Your task to perform on an android device: add a label to a message in the gmail app Image 0: 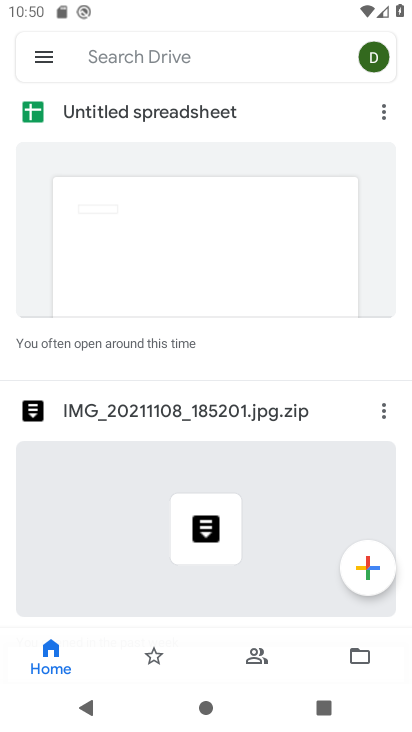
Step 0: press home button
Your task to perform on an android device: add a label to a message in the gmail app Image 1: 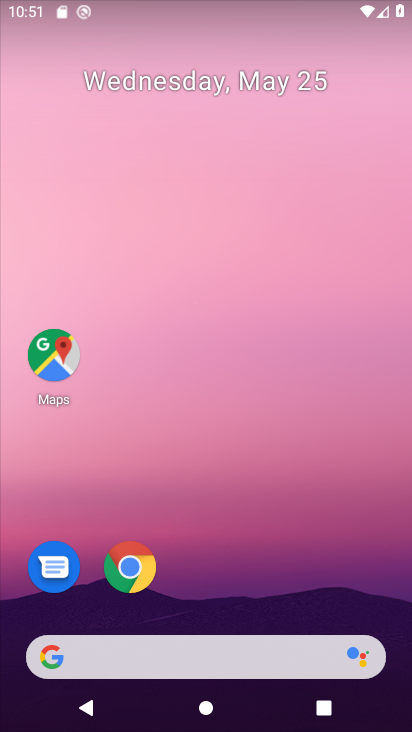
Step 1: drag from (218, 582) to (126, 4)
Your task to perform on an android device: add a label to a message in the gmail app Image 2: 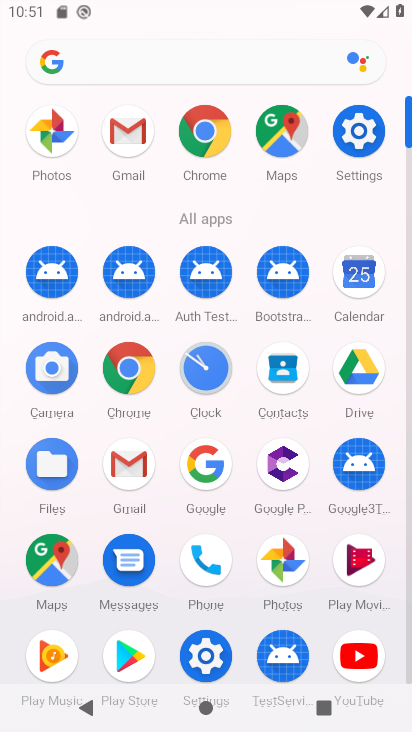
Step 2: click (122, 461)
Your task to perform on an android device: add a label to a message in the gmail app Image 3: 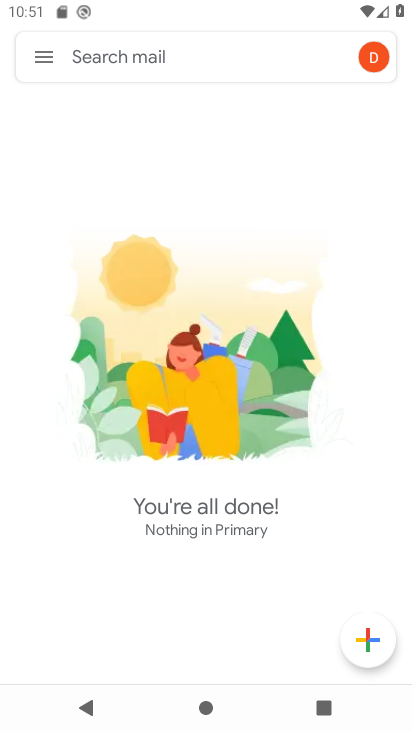
Step 3: click (53, 55)
Your task to perform on an android device: add a label to a message in the gmail app Image 4: 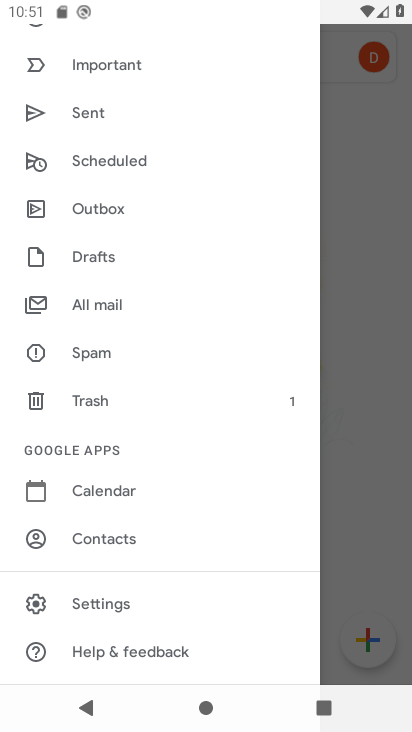
Step 4: click (115, 597)
Your task to perform on an android device: add a label to a message in the gmail app Image 5: 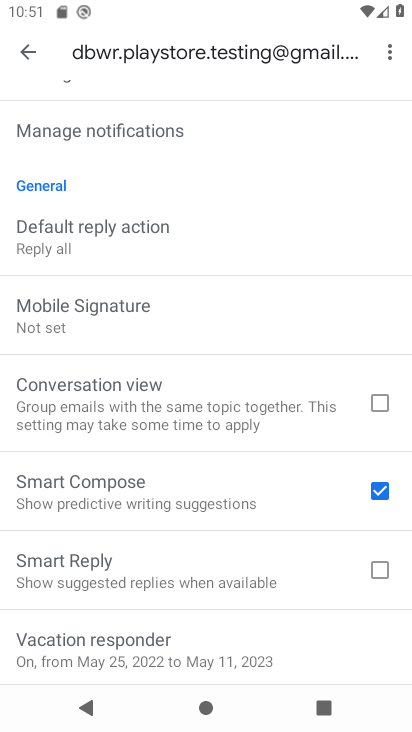
Step 5: drag from (121, 159) to (137, 566)
Your task to perform on an android device: add a label to a message in the gmail app Image 6: 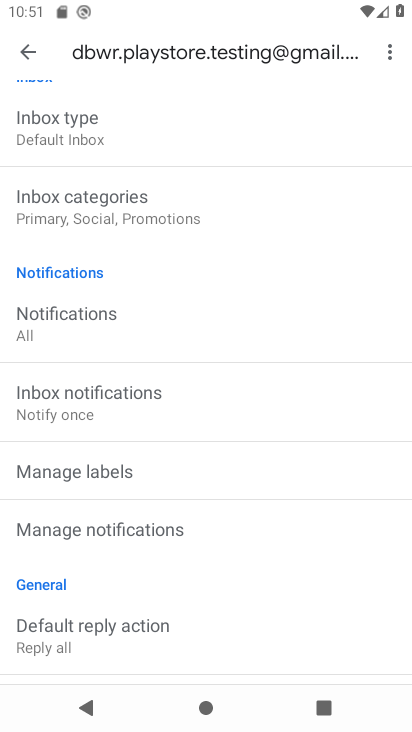
Step 6: press back button
Your task to perform on an android device: add a label to a message in the gmail app Image 7: 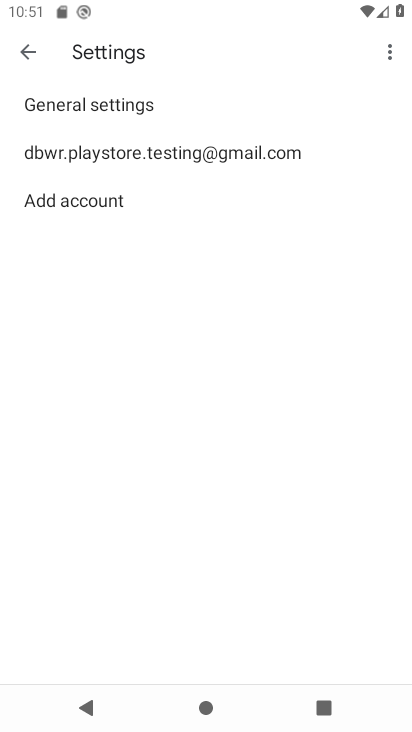
Step 7: press back button
Your task to perform on an android device: add a label to a message in the gmail app Image 8: 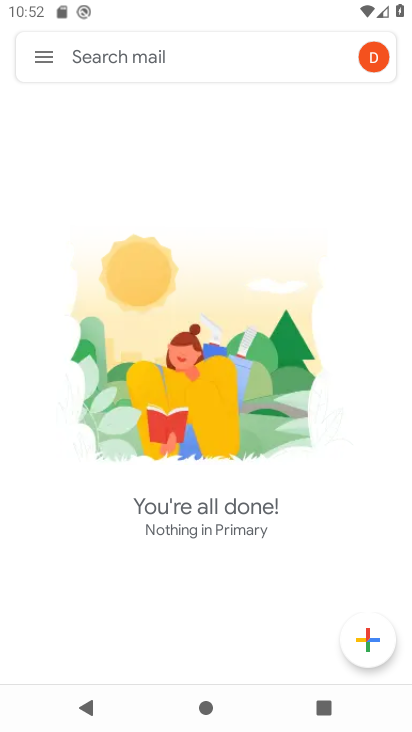
Step 8: click (40, 60)
Your task to perform on an android device: add a label to a message in the gmail app Image 9: 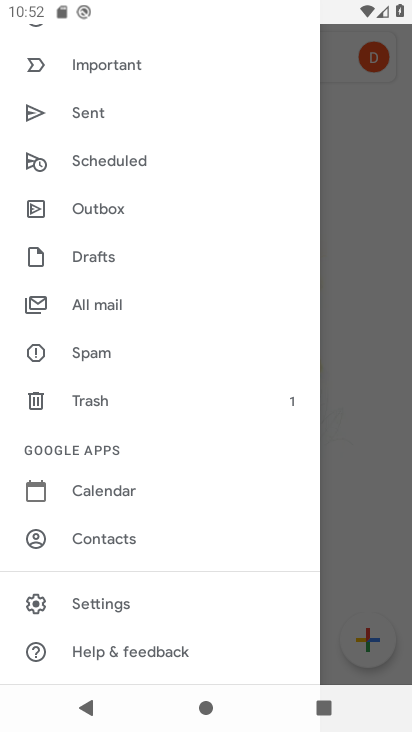
Step 9: click (122, 602)
Your task to perform on an android device: add a label to a message in the gmail app Image 10: 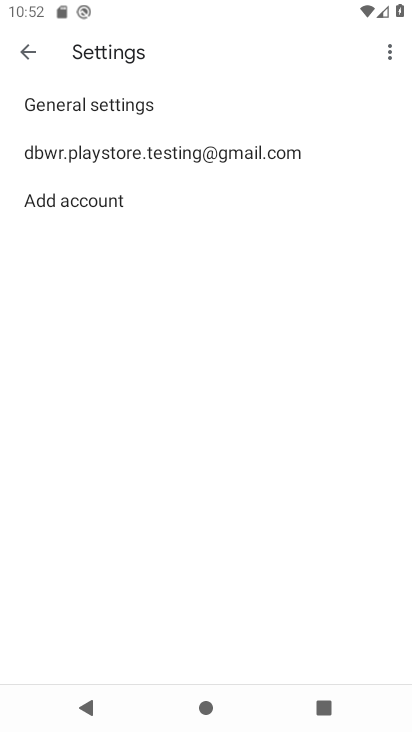
Step 10: click (29, 54)
Your task to perform on an android device: add a label to a message in the gmail app Image 11: 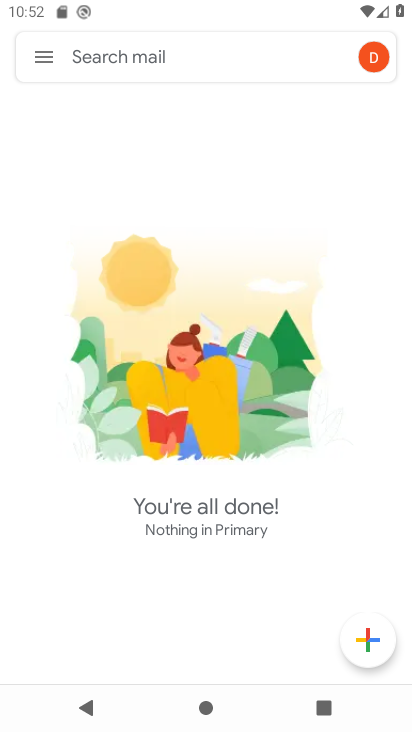
Step 11: click (43, 52)
Your task to perform on an android device: add a label to a message in the gmail app Image 12: 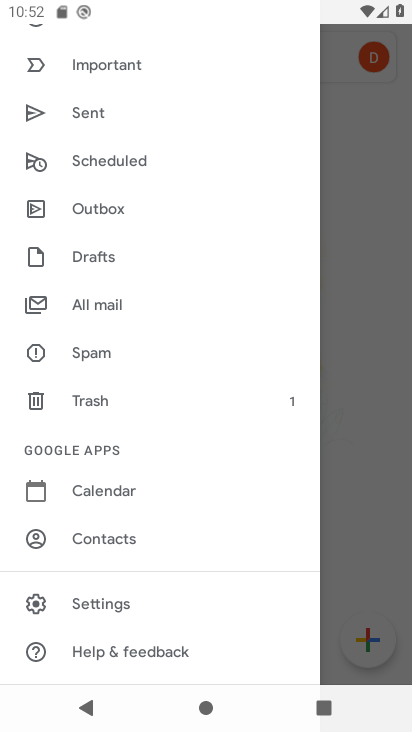
Step 12: click (126, 311)
Your task to perform on an android device: add a label to a message in the gmail app Image 13: 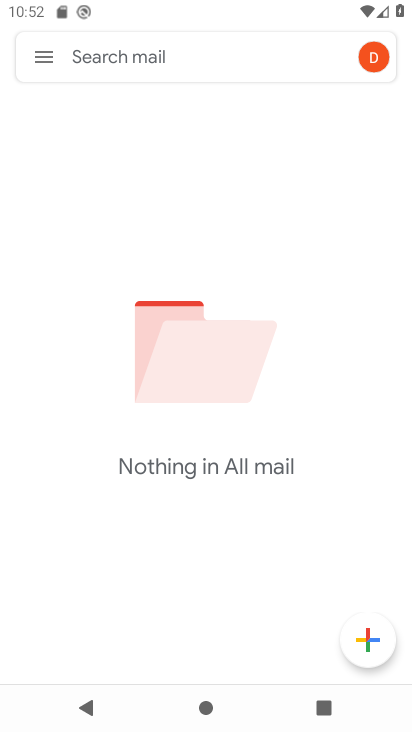
Step 13: task complete